Your task to perform on an android device: open wifi settings Image 0: 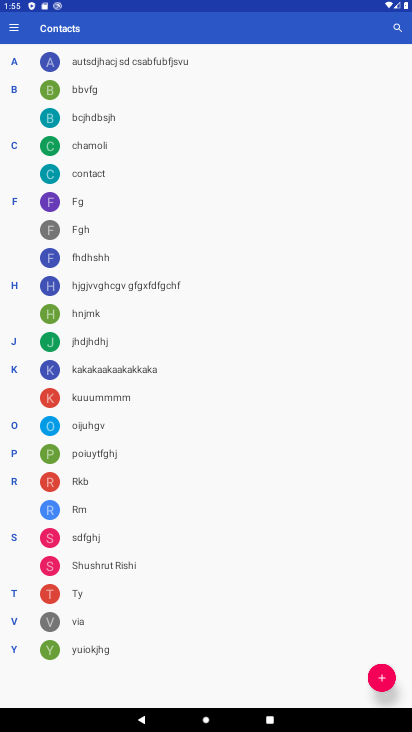
Step 0: drag from (392, 651) to (405, 417)
Your task to perform on an android device: open wifi settings Image 1: 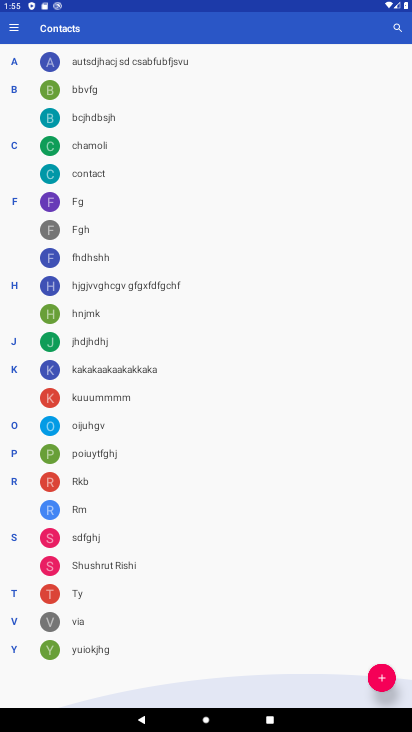
Step 1: press home button
Your task to perform on an android device: open wifi settings Image 2: 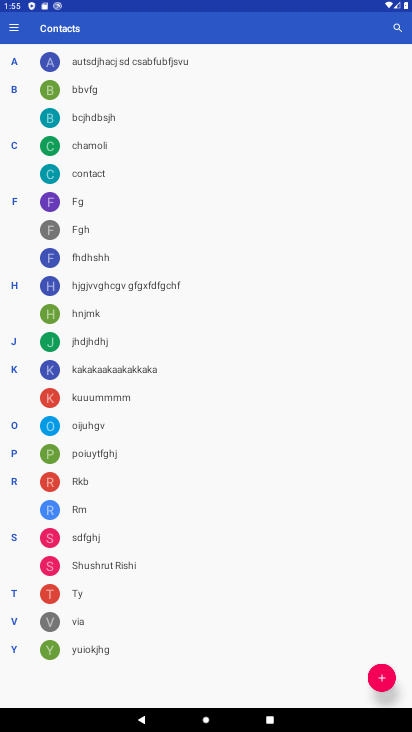
Step 2: drag from (405, 417) to (411, 657)
Your task to perform on an android device: open wifi settings Image 3: 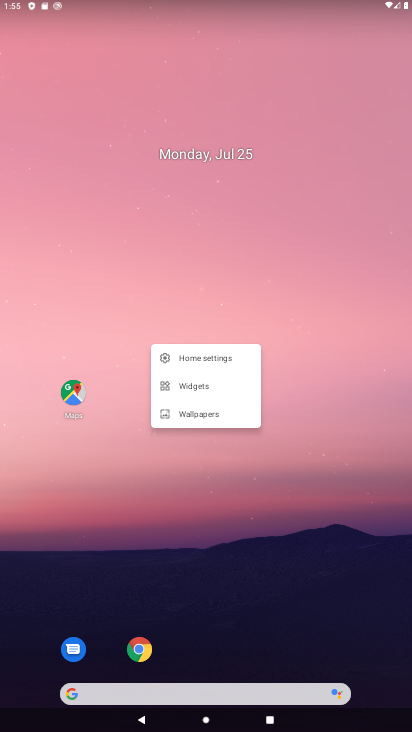
Step 3: drag from (387, 654) to (312, 175)
Your task to perform on an android device: open wifi settings Image 4: 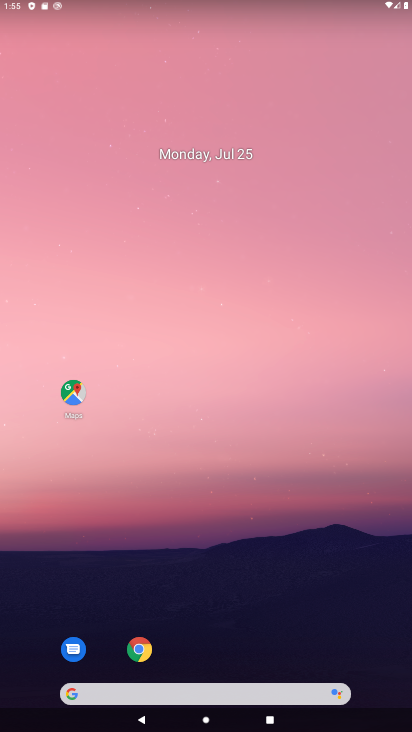
Step 4: drag from (354, 654) to (304, 44)
Your task to perform on an android device: open wifi settings Image 5: 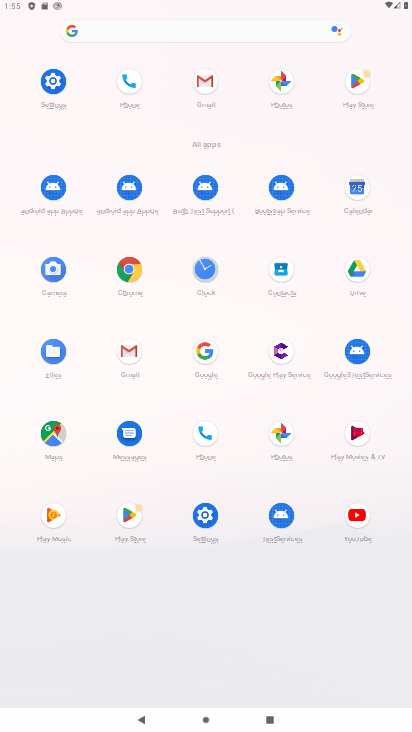
Step 5: click (205, 516)
Your task to perform on an android device: open wifi settings Image 6: 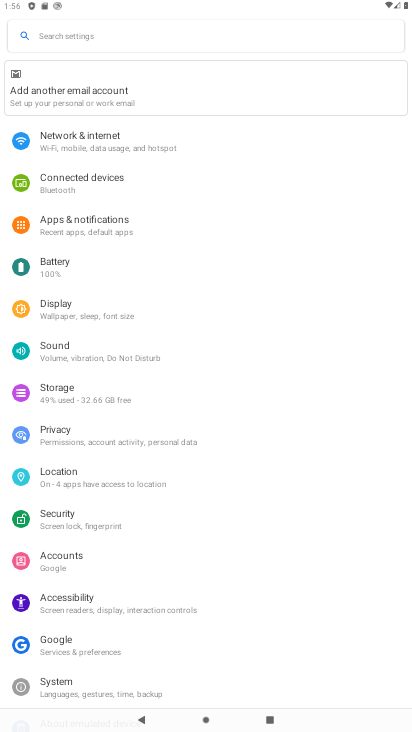
Step 6: click (67, 138)
Your task to perform on an android device: open wifi settings Image 7: 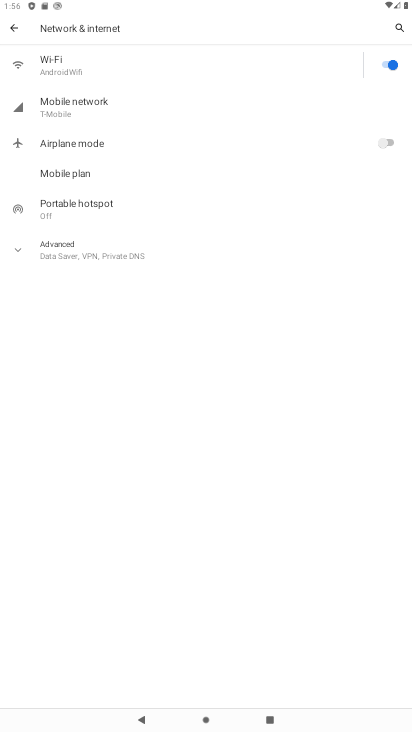
Step 7: click (57, 68)
Your task to perform on an android device: open wifi settings Image 8: 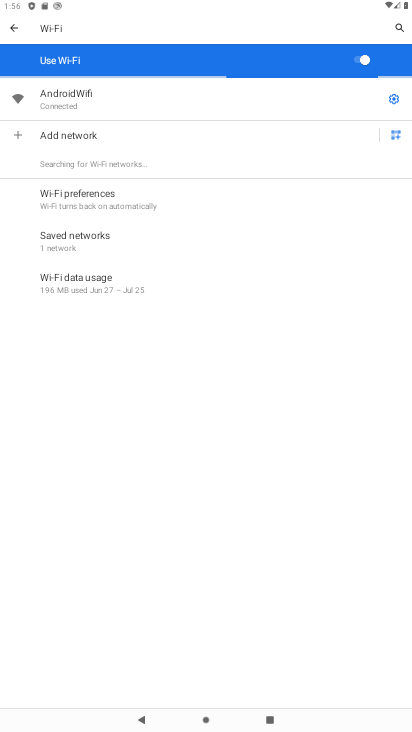
Step 8: task complete